Your task to perform on an android device: read, delete, or share a saved page in the chrome app Image 0: 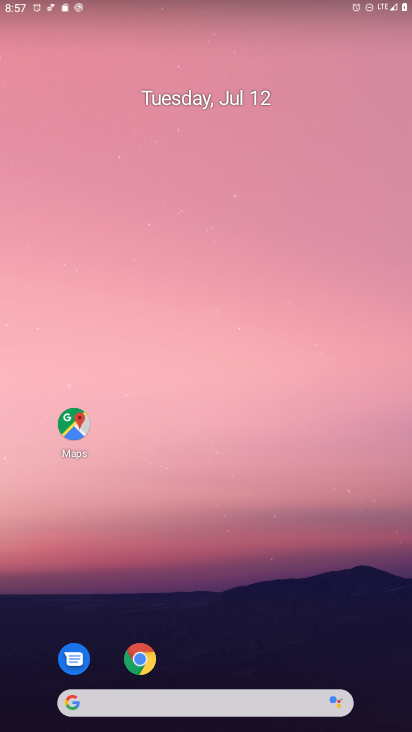
Step 0: click (141, 662)
Your task to perform on an android device: read, delete, or share a saved page in the chrome app Image 1: 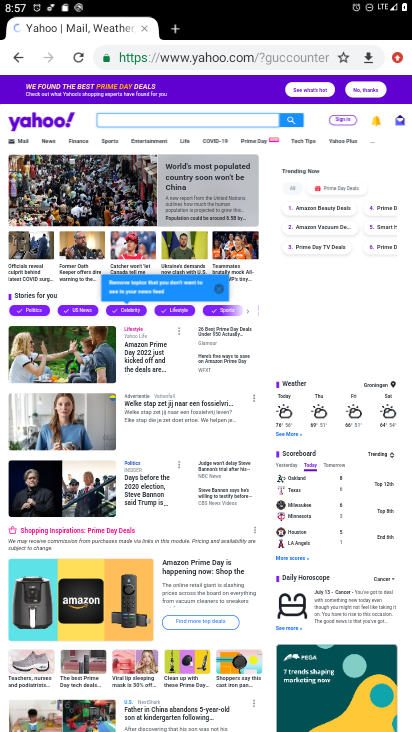
Step 1: click (398, 58)
Your task to perform on an android device: read, delete, or share a saved page in the chrome app Image 2: 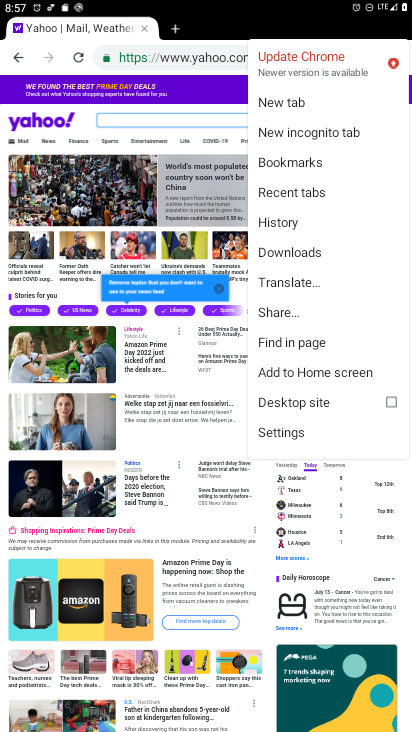
Step 2: click (299, 252)
Your task to perform on an android device: read, delete, or share a saved page in the chrome app Image 3: 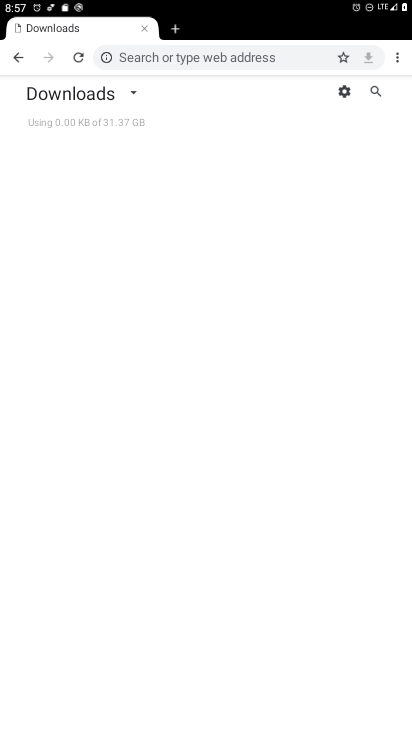
Step 3: click (131, 91)
Your task to perform on an android device: read, delete, or share a saved page in the chrome app Image 4: 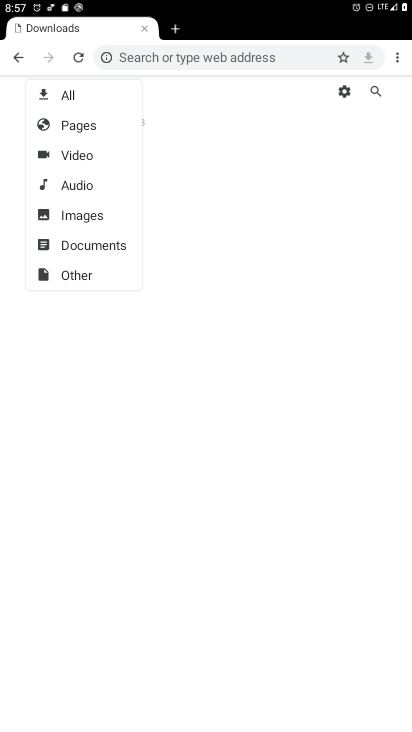
Step 4: click (84, 96)
Your task to perform on an android device: read, delete, or share a saved page in the chrome app Image 5: 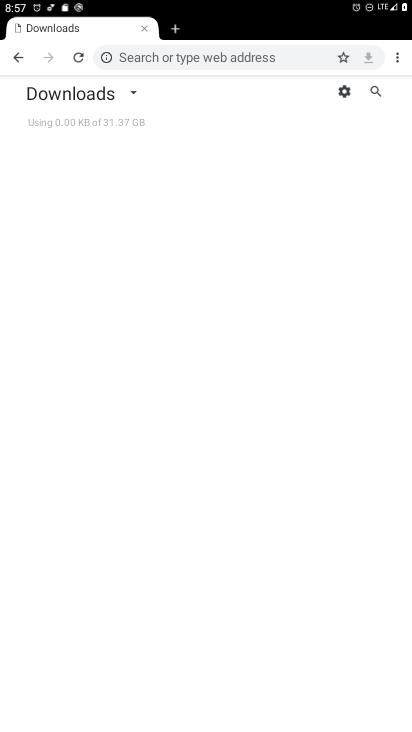
Step 5: task complete